Your task to perform on an android device: Open my contact list Image 0: 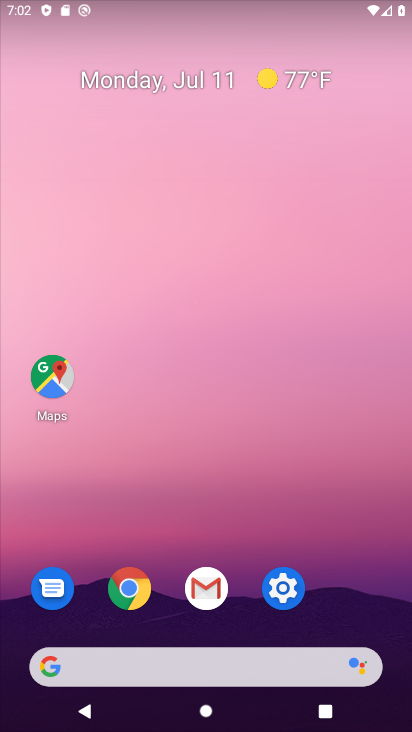
Step 0: drag from (258, 680) to (204, 170)
Your task to perform on an android device: Open my contact list Image 1: 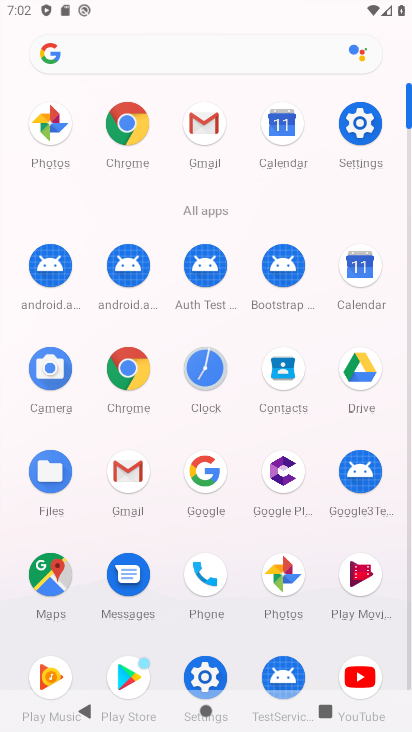
Step 1: click (283, 372)
Your task to perform on an android device: Open my contact list Image 2: 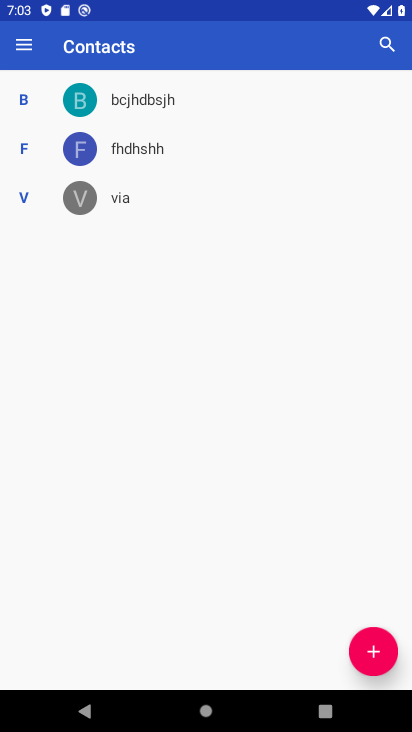
Step 2: task complete